Your task to perform on an android device: Go to wifi settings Image 0: 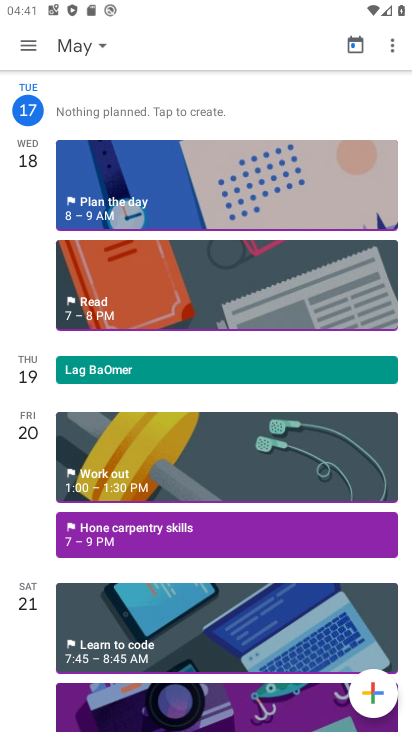
Step 0: press home button
Your task to perform on an android device: Go to wifi settings Image 1: 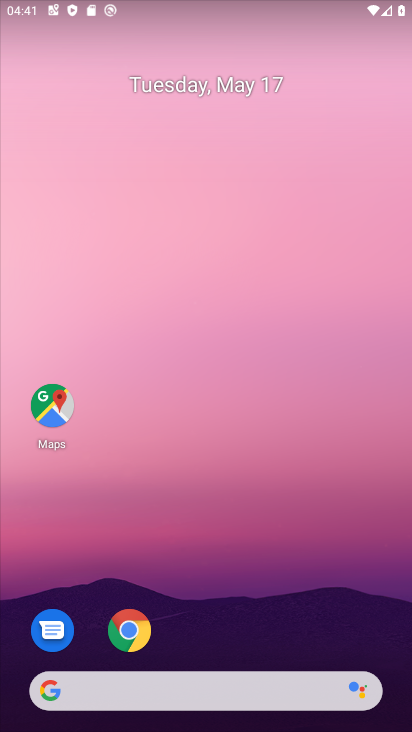
Step 1: drag from (136, 8) to (140, 429)
Your task to perform on an android device: Go to wifi settings Image 2: 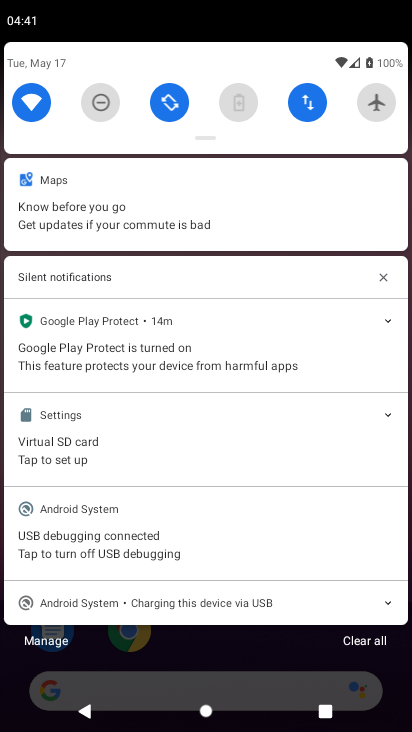
Step 2: click (32, 105)
Your task to perform on an android device: Go to wifi settings Image 3: 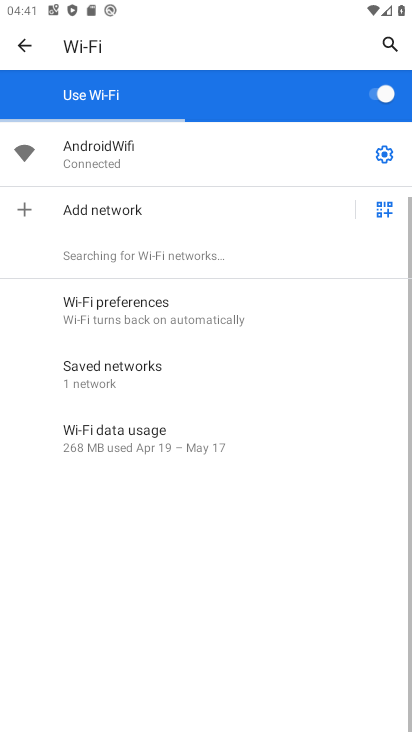
Step 3: task complete